Your task to perform on an android device: turn off javascript in the chrome app Image 0: 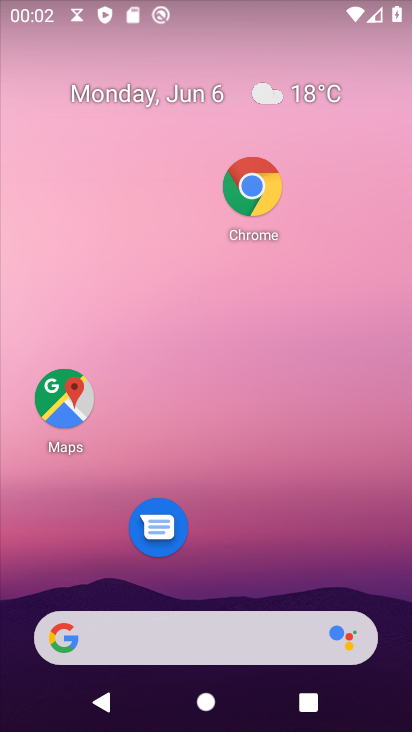
Step 0: click (185, 25)
Your task to perform on an android device: turn off javascript in the chrome app Image 1: 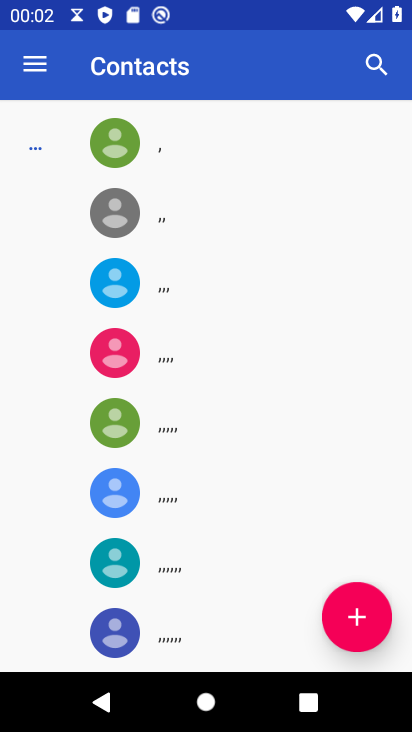
Step 1: press home button
Your task to perform on an android device: turn off javascript in the chrome app Image 2: 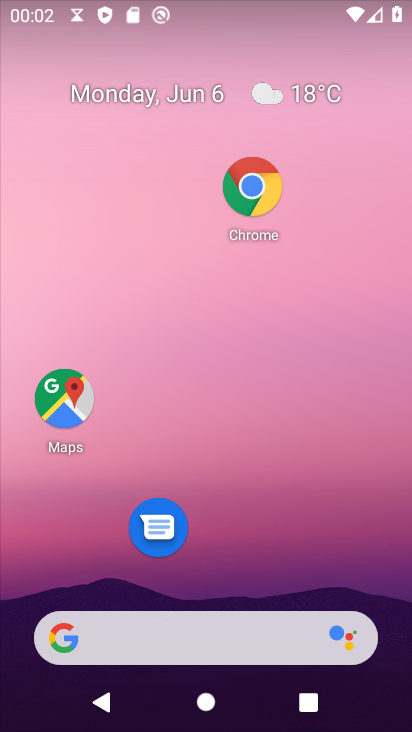
Step 2: drag from (226, 554) to (194, 70)
Your task to perform on an android device: turn off javascript in the chrome app Image 3: 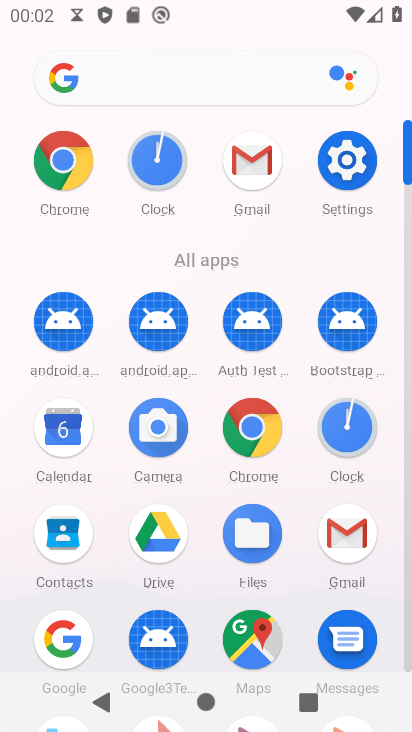
Step 3: click (267, 432)
Your task to perform on an android device: turn off javascript in the chrome app Image 4: 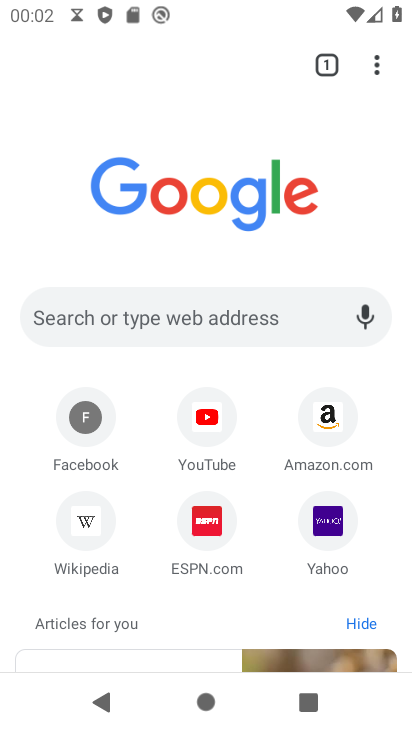
Step 4: click (376, 75)
Your task to perform on an android device: turn off javascript in the chrome app Image 5: 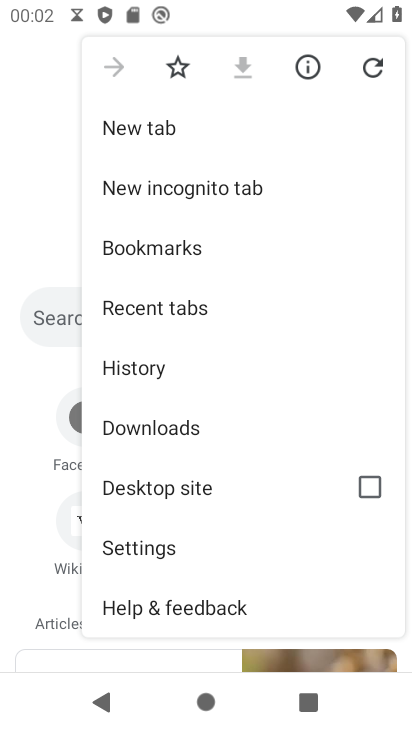
Step 5: drag from (188, 539) to (225, 166)
Your task to perform on an android device: turn off javascript in the chrome app Image 6: 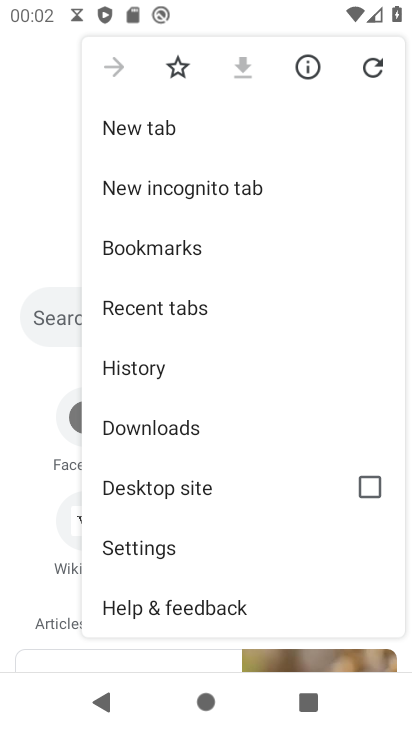
Step 6: click (146, 549)
Your task to perform on an android device: turn off javascript in the chrome app Image 7: 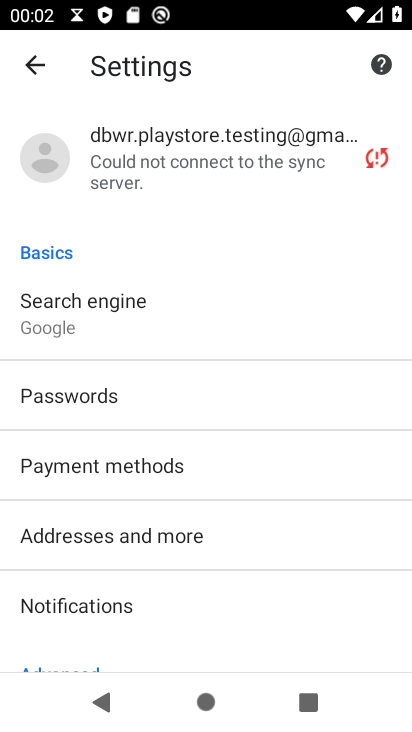
Step 7: drag from (177, 566) to (203, 239)
Your task to perform on an android device: turn off javascript in the chrome app Image 8: 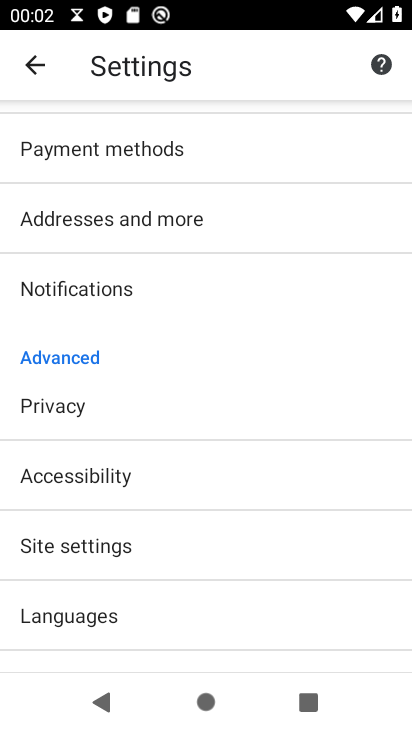
Step 8: click (98, 553)
Your task to perform on an android device: turn off javascript in the chrome app Image 9: 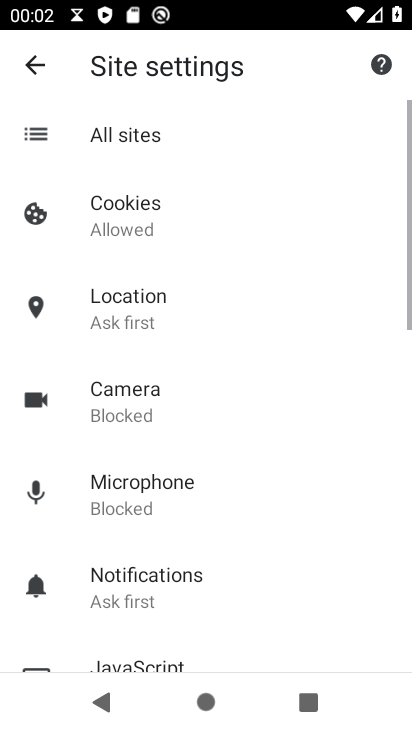
Step 9: drag from (161, 579) to (219, 292)
Your task to perform on an android device: turn off javascript in the chrome app Image 10: 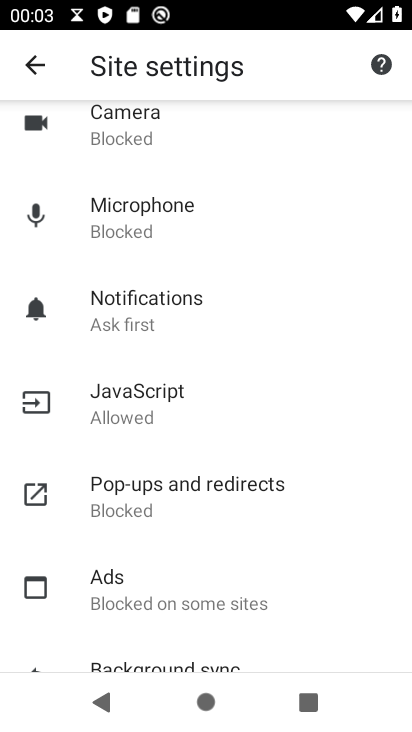
Step 10: drag from (183, 550) to (217, 351)
Your task to perform on an android device: turn off javascript in the chrome app Image 11: 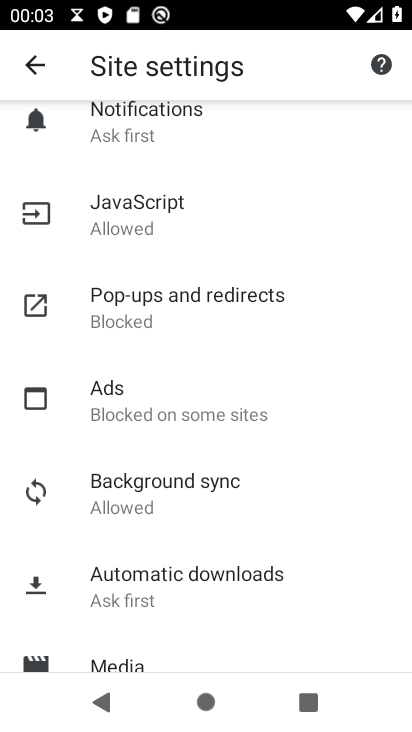
Step 11: drag from (218, 506) to (224, 375)
Your task to perform on an android device: turn off javascript in the chrome app Image 12: 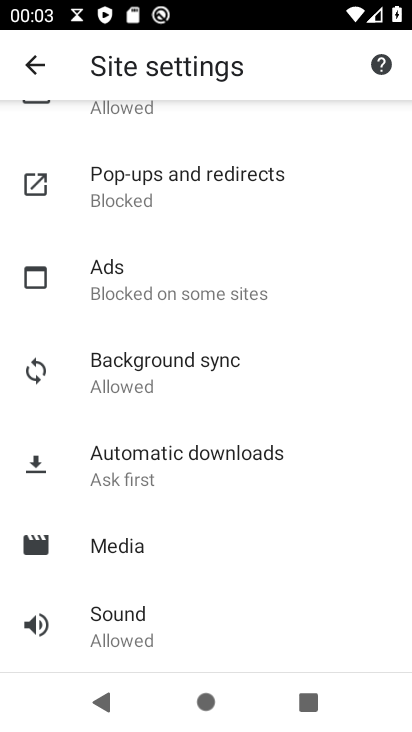
Step 12: drag from (184, 538) to (194, 306)
Your task to perform on an android device: turn off javascript in the chrome app Image 13: 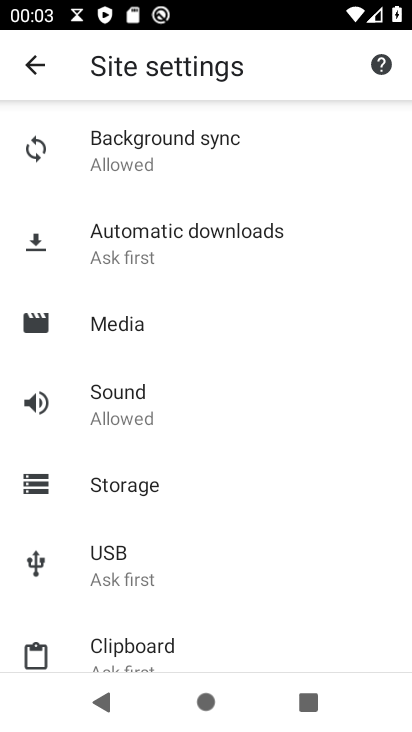
Step 13: drag from (238, 306) to (224, 514)
Your task to perform on an android device: turn off javascript in the chrome app Image 14: 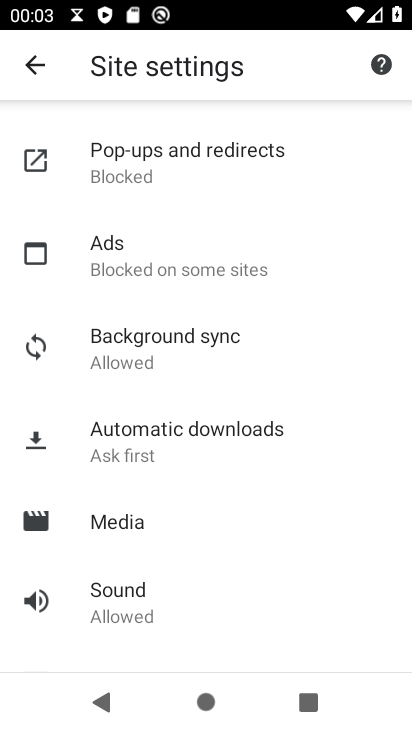
Step 14: drag from (197, 361) to (199, 587)
Your task to perform on an android device: turn off javascript in the chrome app Image 15: 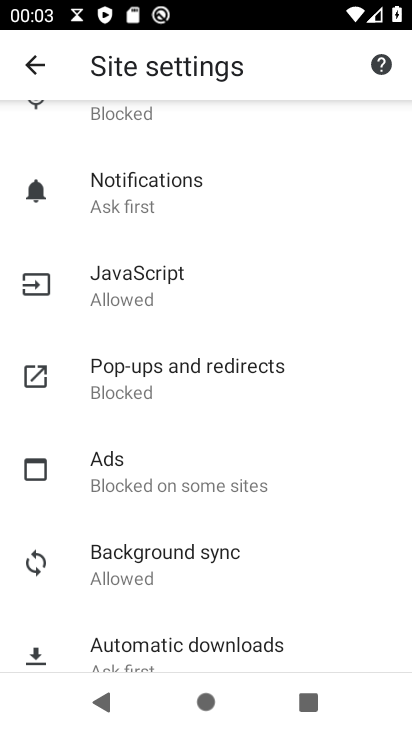
Step 15: click (158, 296)
Your task to perform on an android device: turn off javascript in the chrome app Image 16: 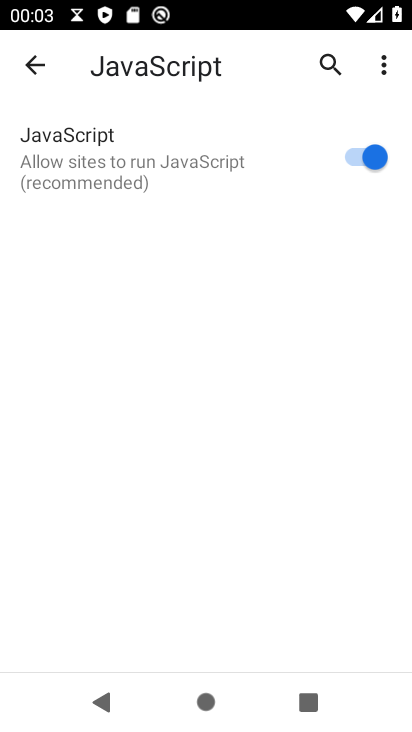
Step 16: click (359, 154)
Your task to perform on an android device: turn off javascript in the chrome app Image 17: 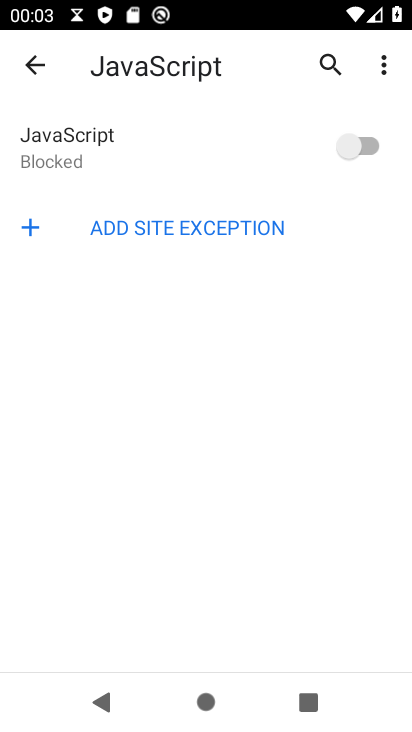
Step 17: task complete